Your task to perform on an android device: Open Google Maps Image 0: 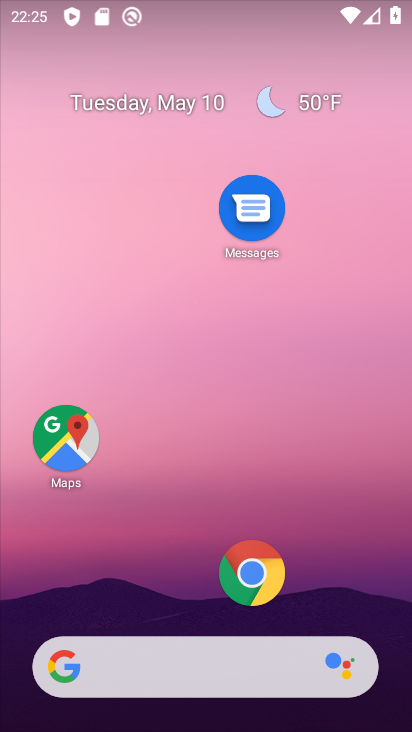
Step 0: click (65, 444)
Your task to perform on an android device: Open Google Maps Image 1: 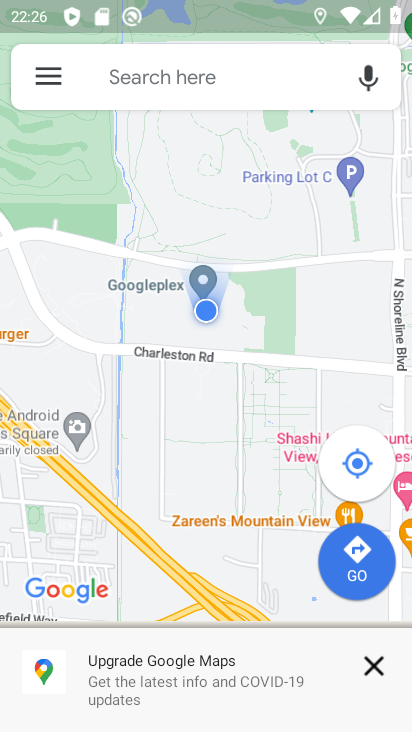
Step 1: task complete